Your task to perform on an android device: Show me productivity apps on the Play Store Image 0: 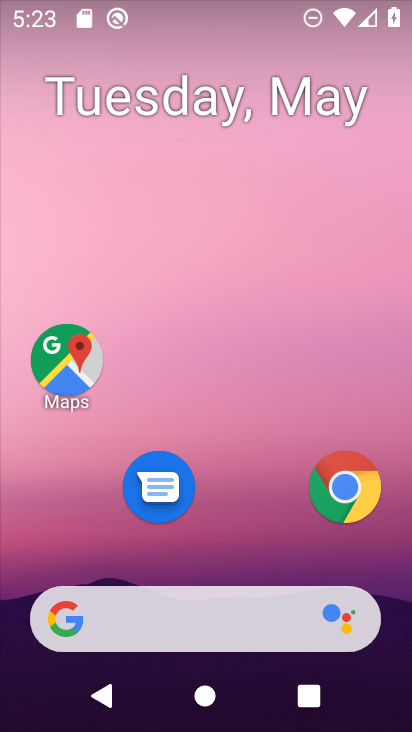
Step 0: drag from (268, 569) to (258, 63)
Your task to perform on an android device: Show me productivity apps on the Play Store Image 1: 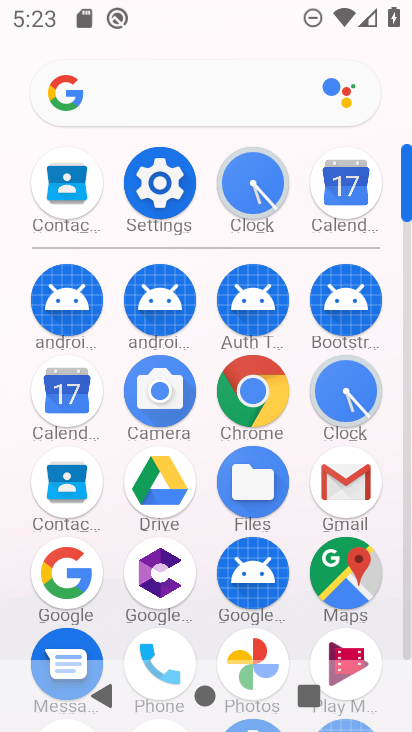
Step 1: click (410, 614)
Your task to perform on an android device: Show me productivity apps on the Play Store Image 2: 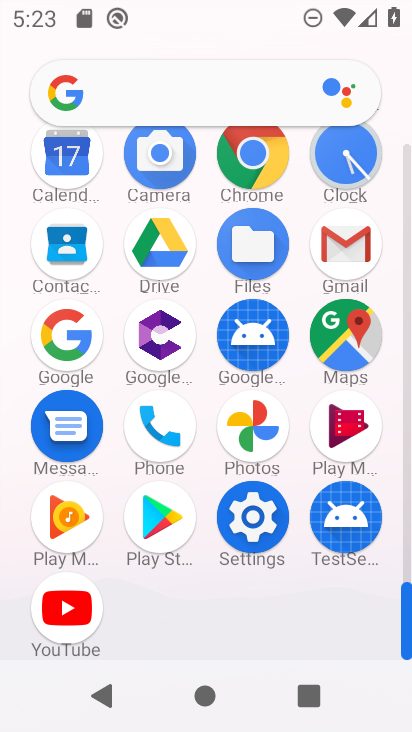
Step 2: click (178, 550)
Your task to perform on an android device: Show me productivity apps on the Play Store Image 3: 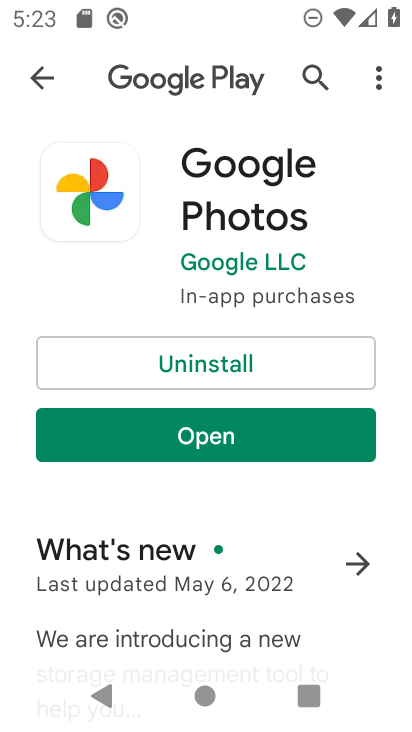
Step 3: click (185, 446)
Your task to perform on an android device: Show me productivity apps on the Play Store Image 4: 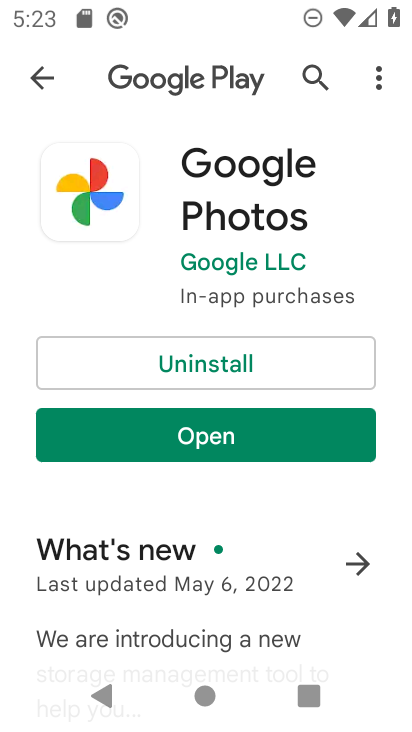
Step 4: drag from (185, 446) to (173, 230)
Your task to perform on an android device: Show me productivity apps on the Play Store Image 5: 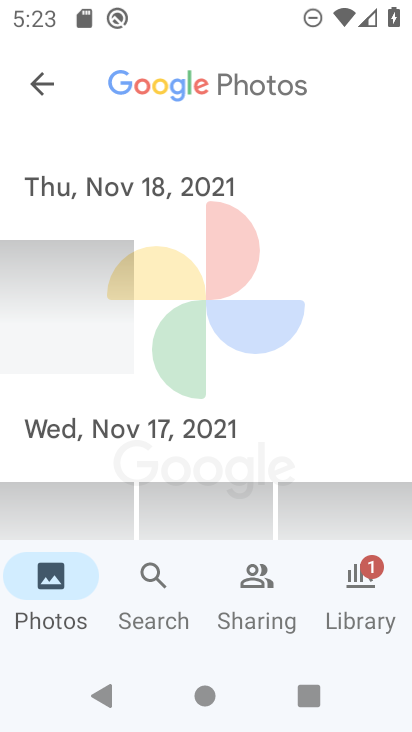
Step 5: click (107, 716)
Your task to perform on an android device: Show me productivity apps on the Play Store Image 6: 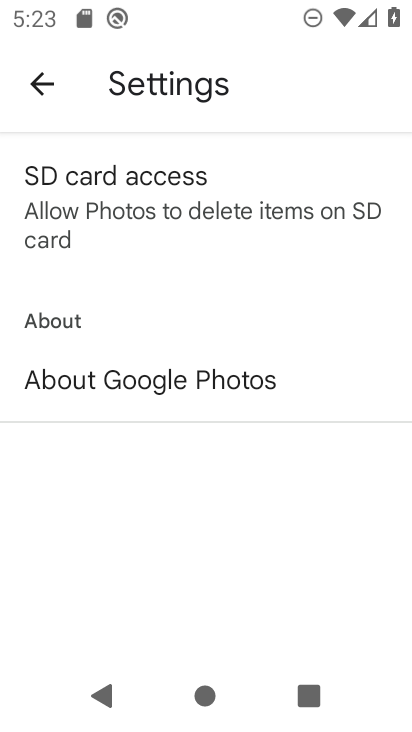
Step 6: click (98, 711)
Your task to perform on an android device: Show me productivity apps on the Play Store Image 7: 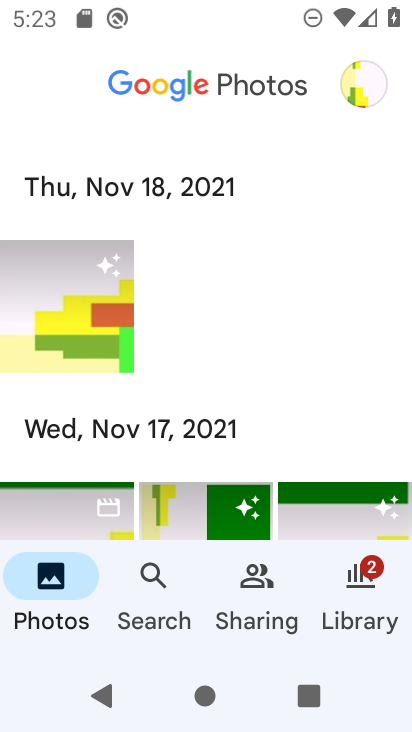
Step 7: click (98, 711)
Your task to perform on an android device: Show me productivity apps on the Play Store Image 8: 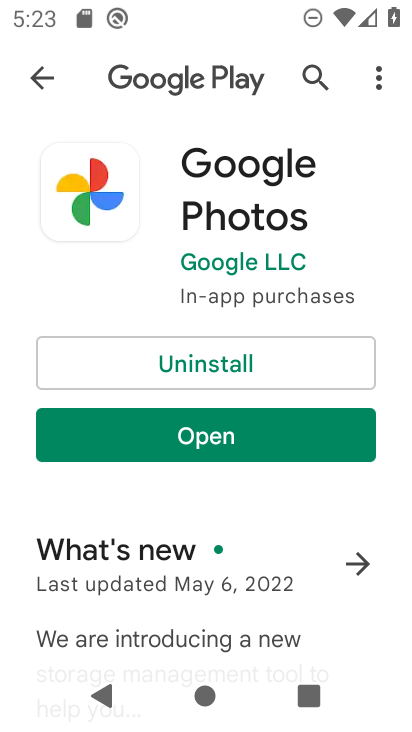
Step 8: click (62, 67)
Your task to perform on an android device: Show me productivity apps on the Play Store Image 9: 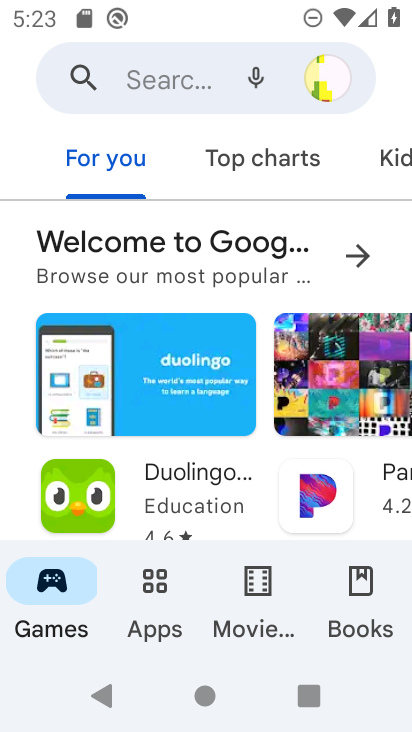
Step 9: click (158, 608)
Your task to perform on an android device: Show me productivity apps on the Play Store Image 10: 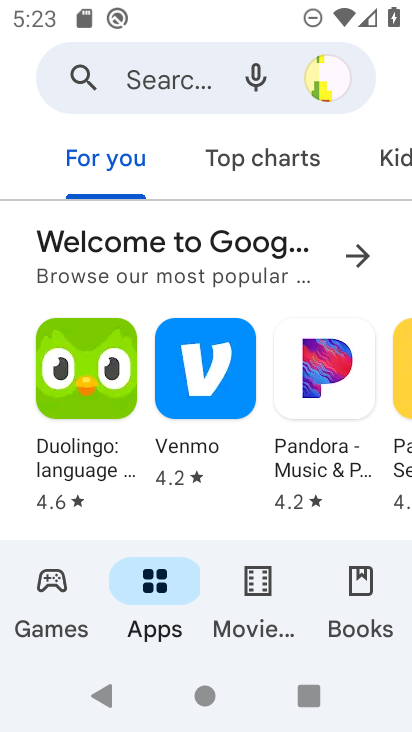
Step 10: click (247, 174)
Your task to perform on an android device: Show me productivity apps on the Play Store Image 11: 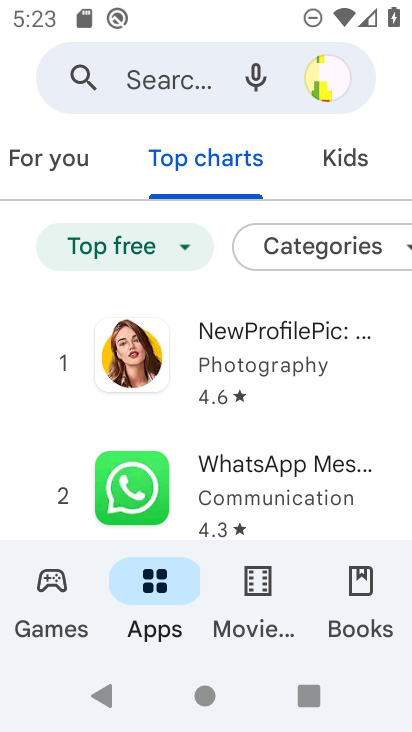
Step 11: click (273, 258)
Your task to perform on an android device: Show me productivity apps on the Play Store Image 12: 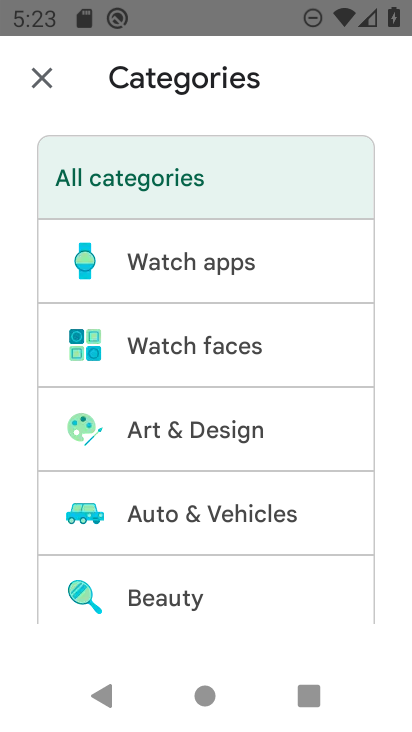
Step 12: drag from (261, 525) to (235, 172)
Your task to perform on an android device: Show me productivity apps on the Play Store Image 13: 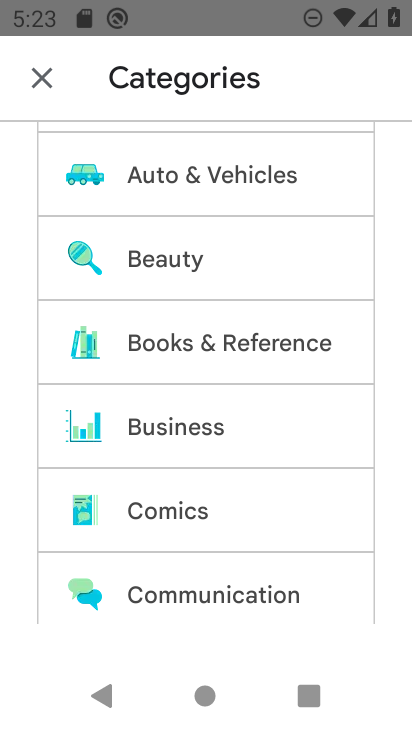
Step 13: drag from (202, 585) to (256, 163)
Your task to perform on an android device: Show me productivity apps on the Play Store Image 14: 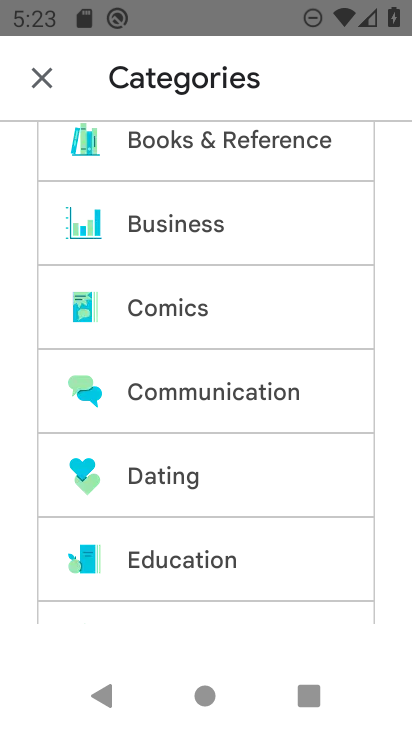
Step 14: drag from (234, 550) to (255, 173)
Your task to perform on an android device: Show me productivity apps on the Play Store Image 15: 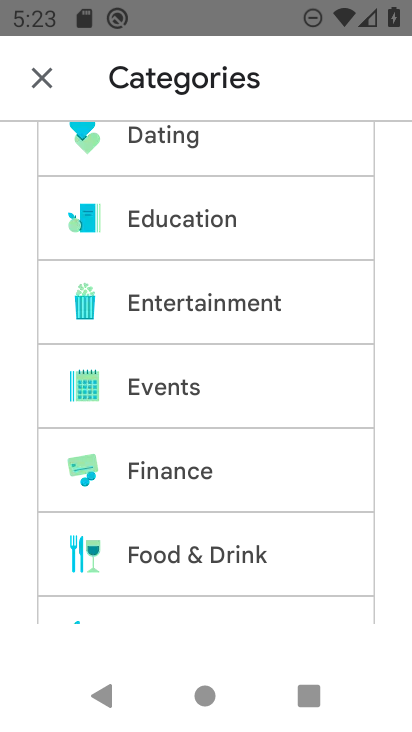
Step 15: drag from (235, 567) to (245, 165)
Your task to perform on an android device: Show me productivity apps on the Play Store Image 16: 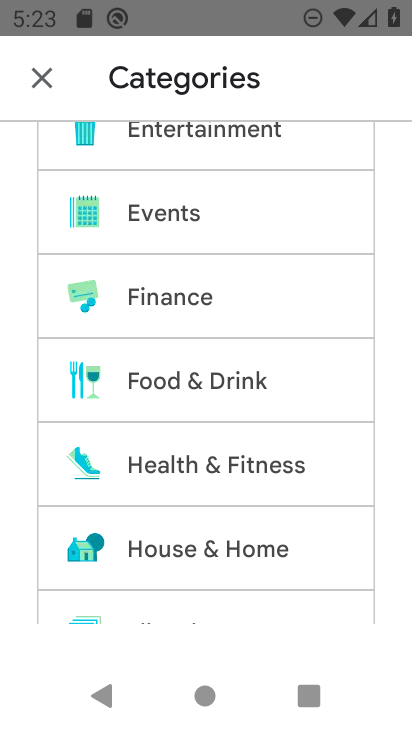
Step 16: drag from (220, 548) to (267, 137)
Your task to perform on an android device: Show me productivity apps on the Play Store Image 17: 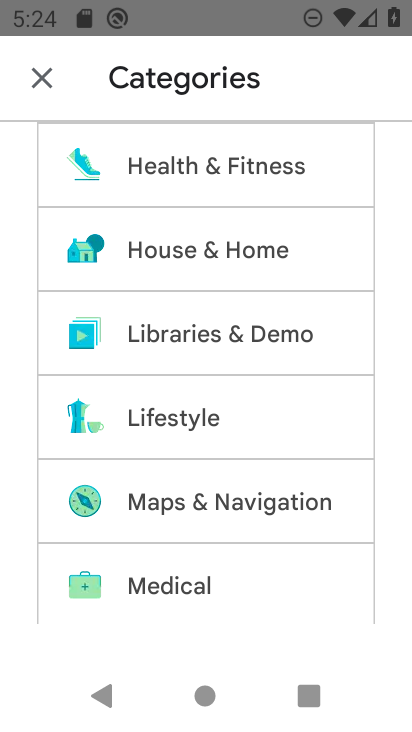
Step 17: drag from (215, 531) to (257, 58)
Your task to perform on an android device: Show me productivity apps on the Play Store Image 18: 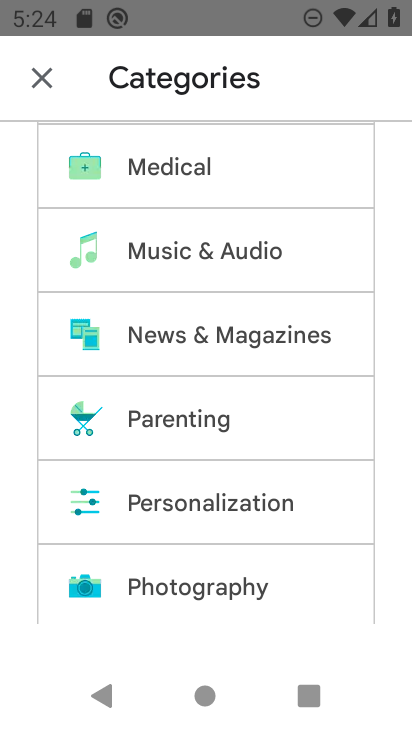
Step 18: drag from (234, 508) to (237, 332)
Your task to perform on an android device: Show me productivity apps on the Play Store Image 19: 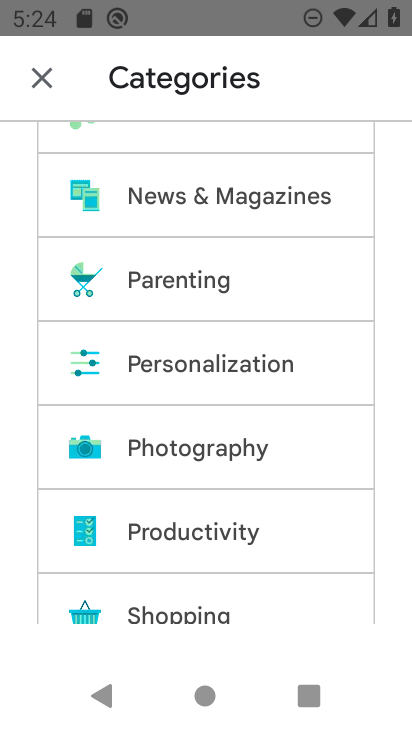
Step 19: click (216, 513)
Your task to perform on an android device: Show me productivity apps on the Play Store Image 20: 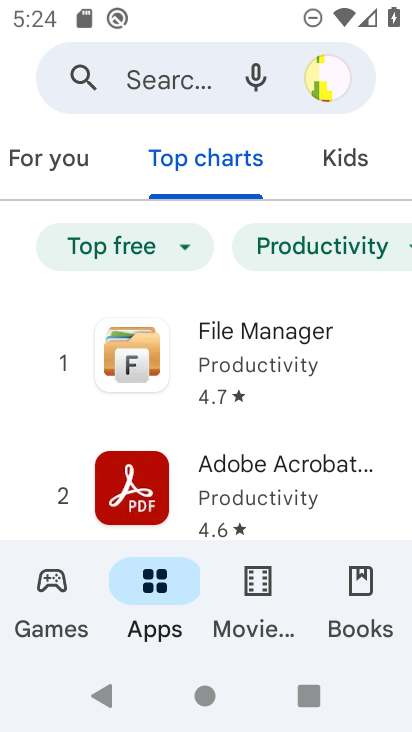
Step 20: task complete